Your task to perform on an android device: uninstall "WhatsApp Messenger" Image 0: 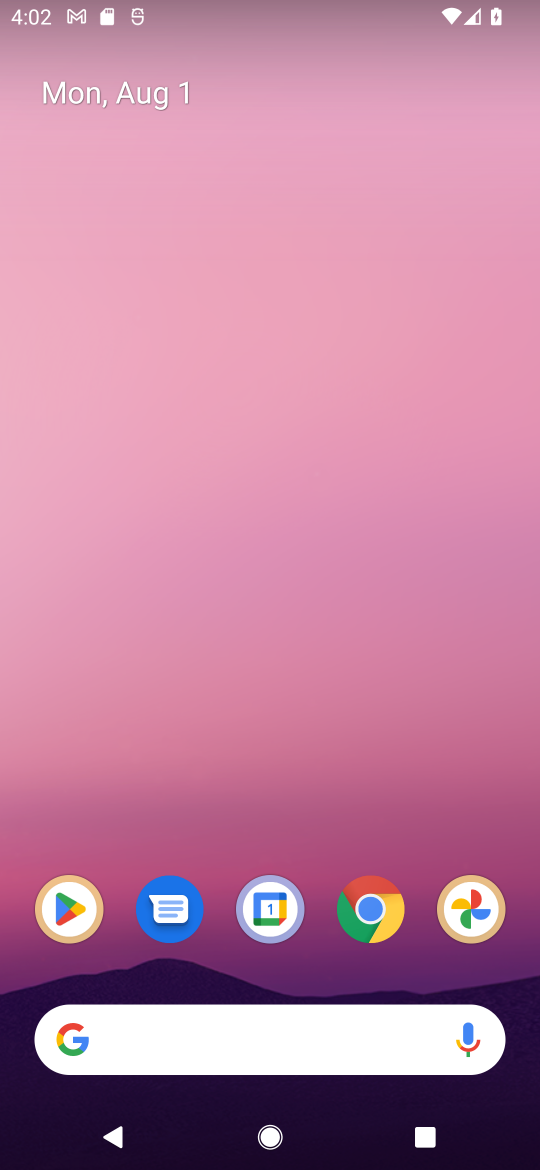
Step 0: click (70, 902)
Your task to perform on an android device: uninstall "WhatsApp Messenger" Image 1: 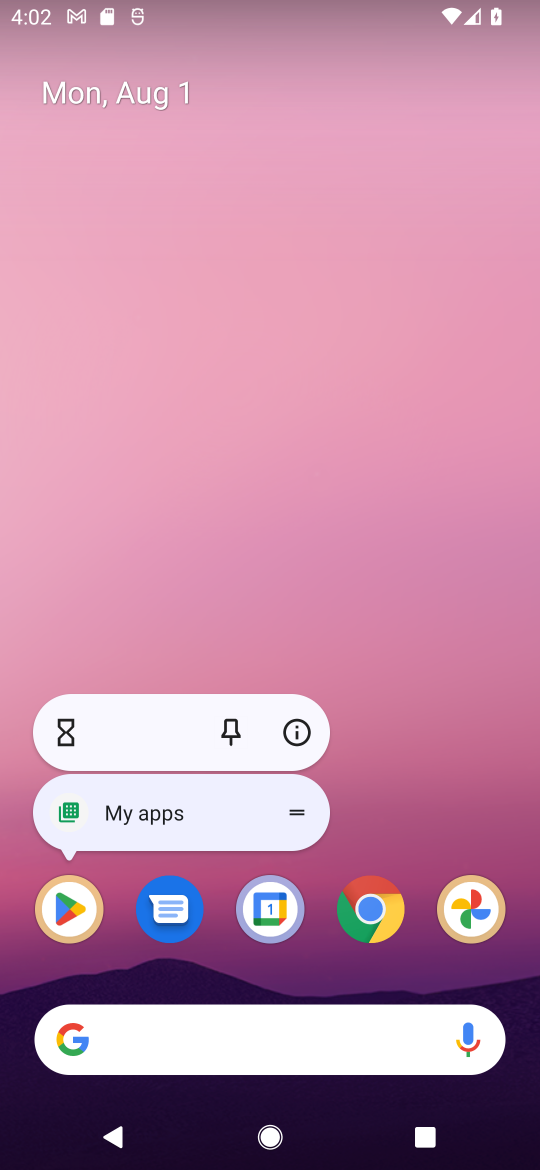
Step 1: click (51, 933)
Your task to perform on an android device: uninstall "WhatsApp Messenger" Image 2: 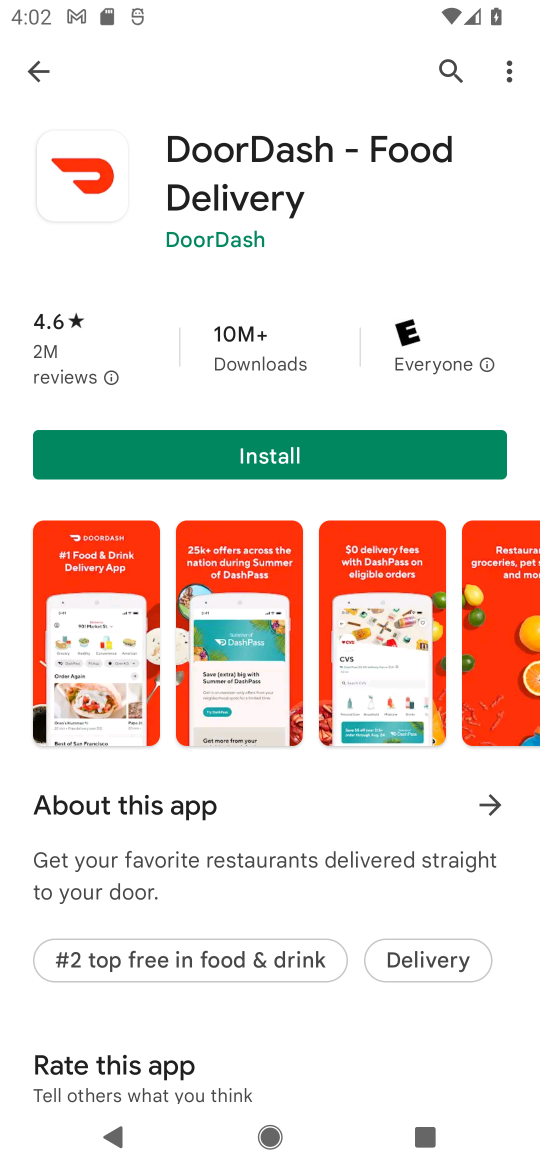
Step 2: click (39, 70)
Your task to perform on an android device: uninstall "WhatsApp Messenger" Image 3: 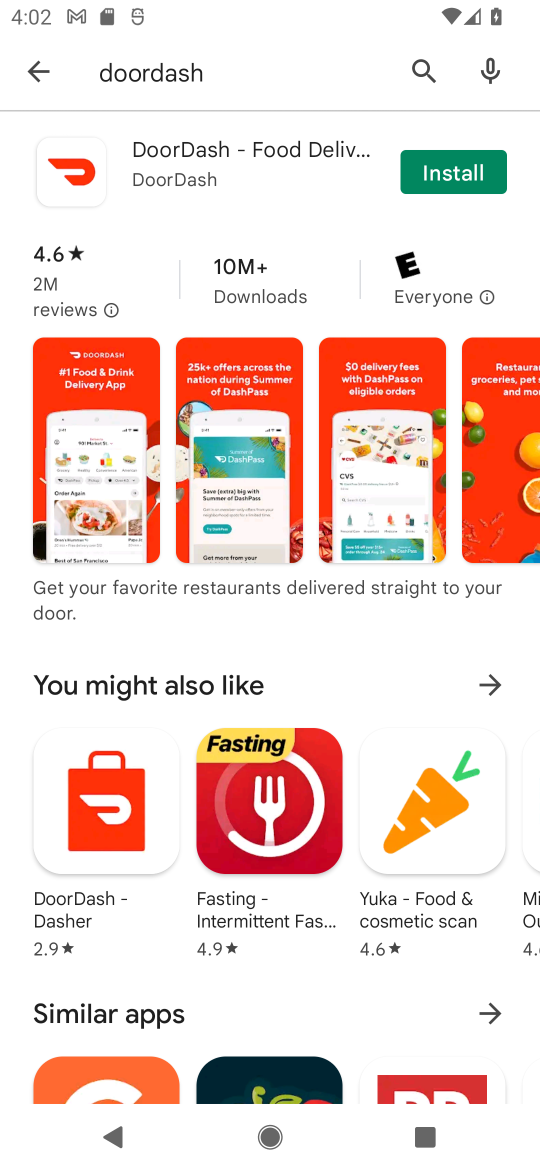
Step 3: click (209, 43)
Your task to perform on an android device: uninstall "WhatsApp Messenger" Image 4: 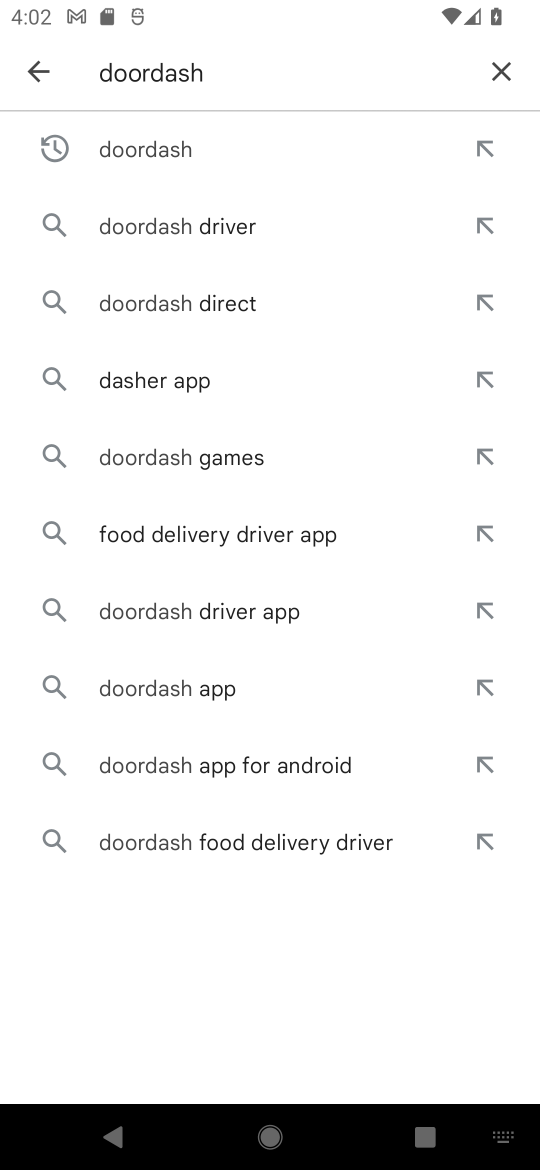
Step 4: click (497, 63)
Your task to perform on an android device: uninstall "WhatsApp Messenger" Image 5: 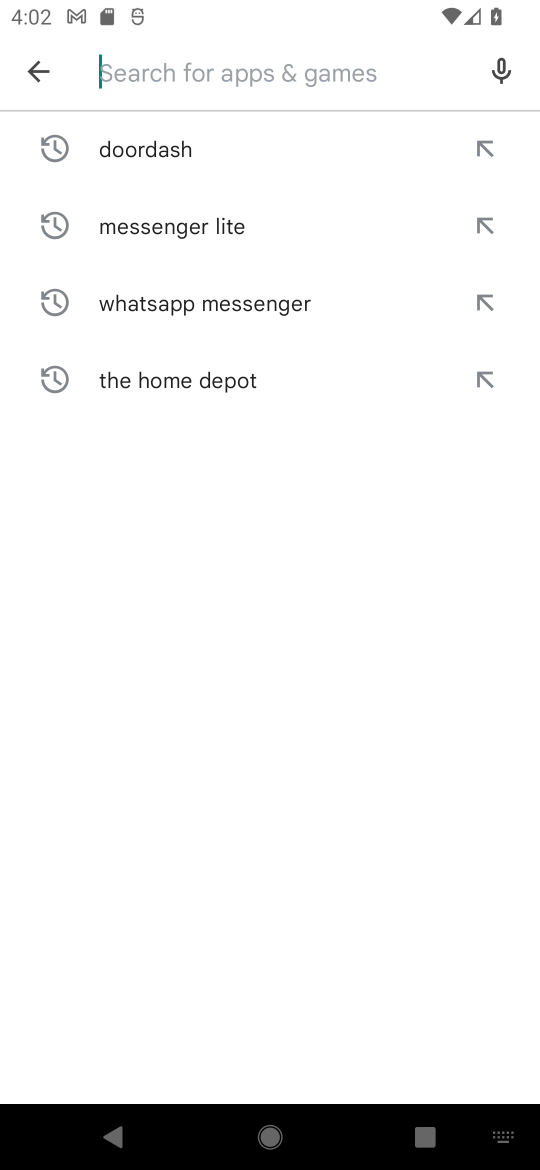
Step 5: type "whatsapp messenger"
Your task to perform on an android device: uninstall "WhatsApp Messenger" Image 6: 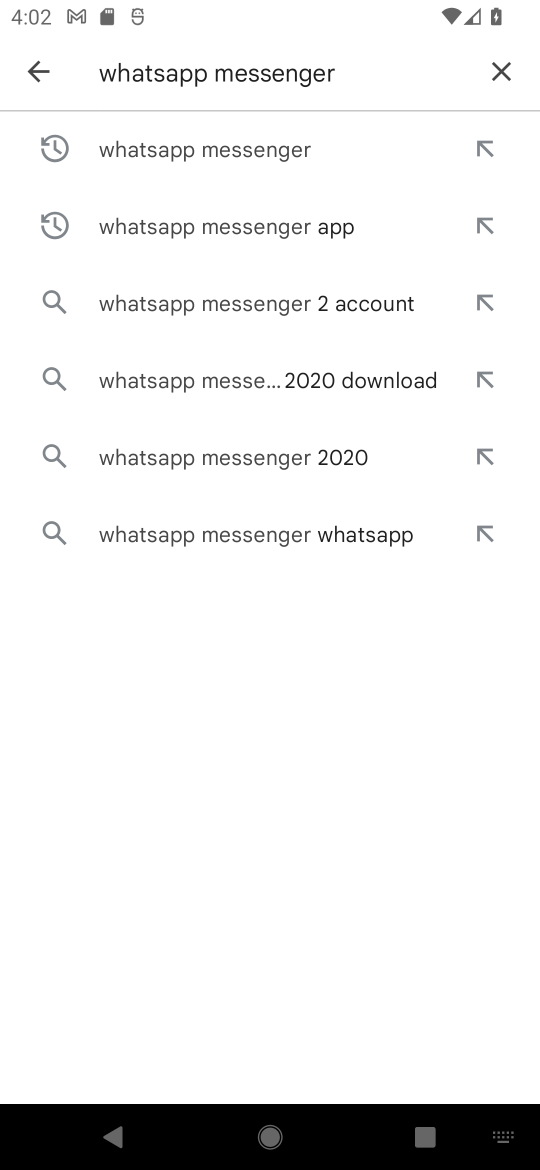
Step 6: click (224, 140)
Your task to perform on an android device: uninstall "WhatsApp Messenger" Image 7: 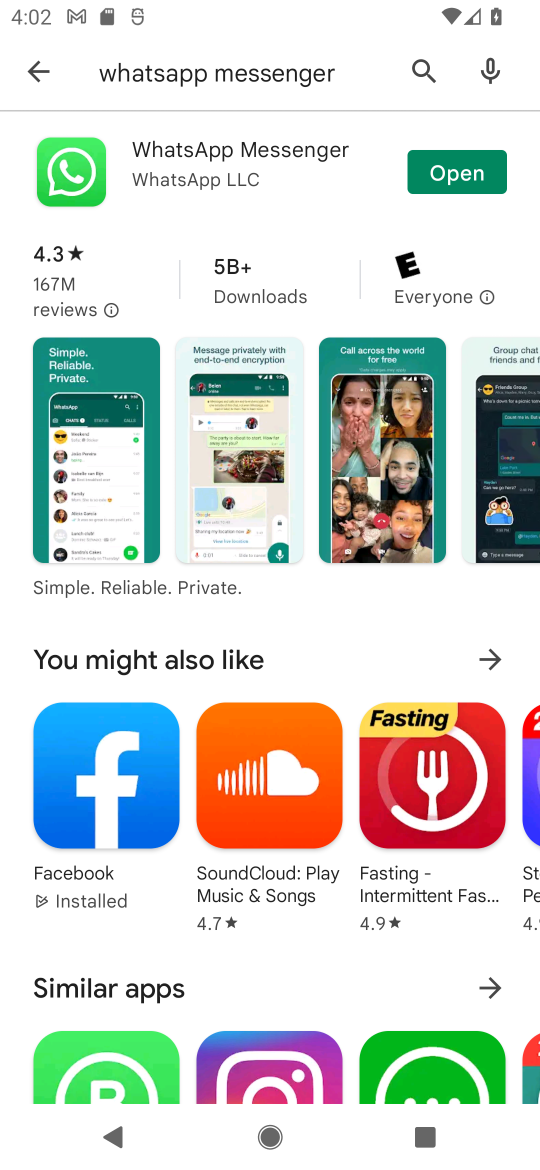
Step 7: click (69, 152)
Your task to perform on an android device: uninstall "WhatsApp Messenger" Image 8: 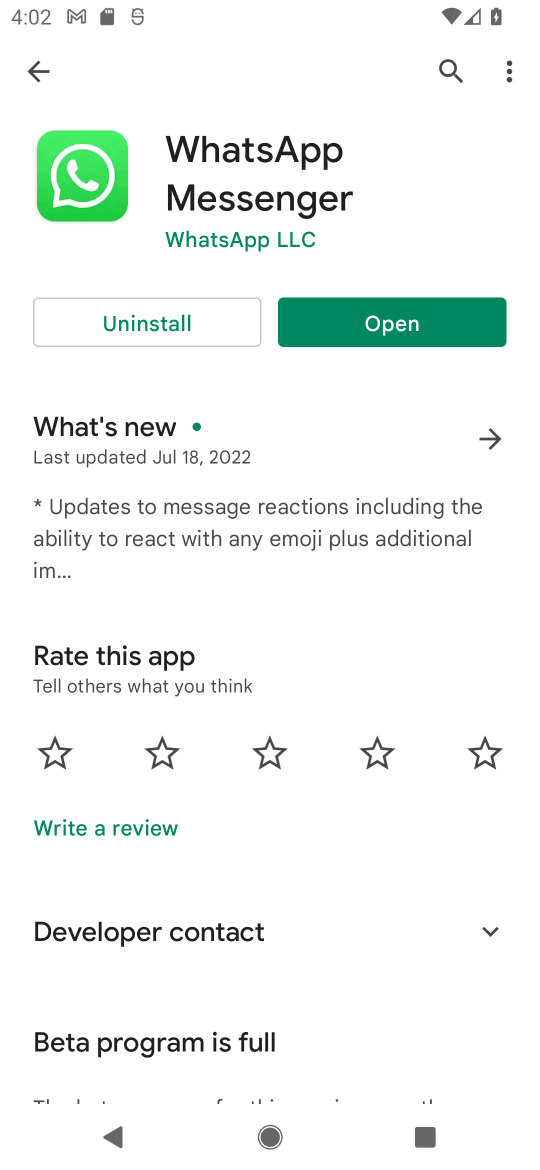
Step 8: click (144, 326)
Your task to perform on an android device: uninstall "WhatsApp Messenger" Image 9: 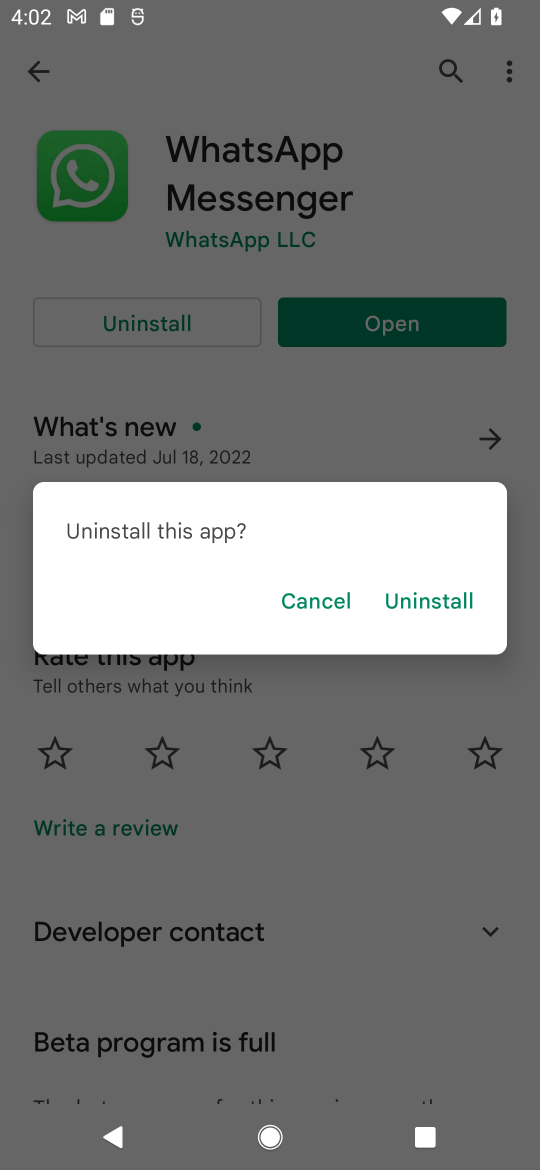
Step 9: click (435, 608)
Your task to perform on an android device: uninstall "WhatsApp Messenger" Image 10: 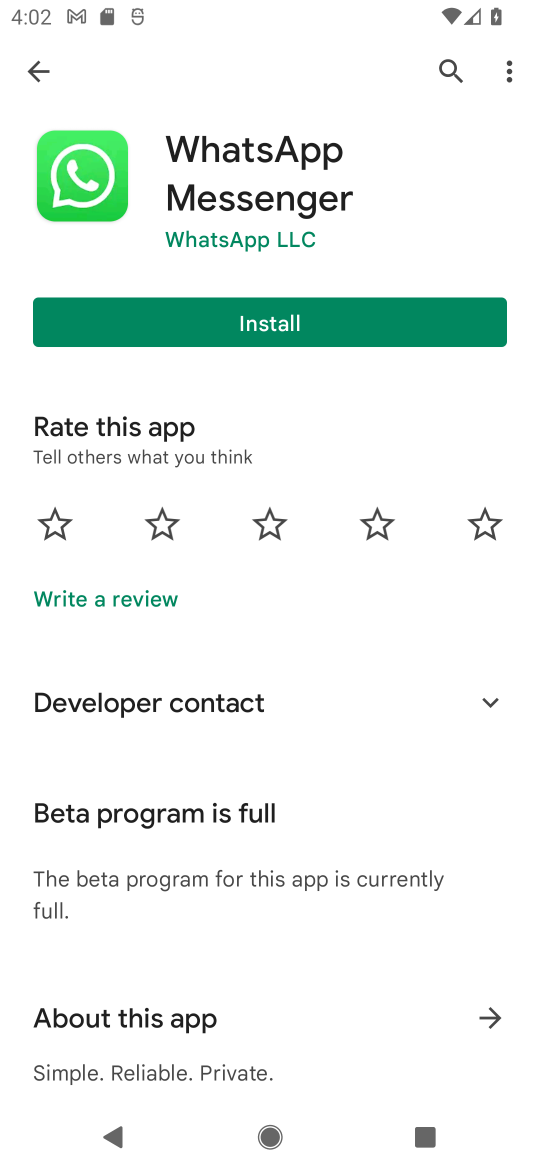
Step 10: task complete